Your task to perform on an android device: delete browsing data in the chrome app Image 0: 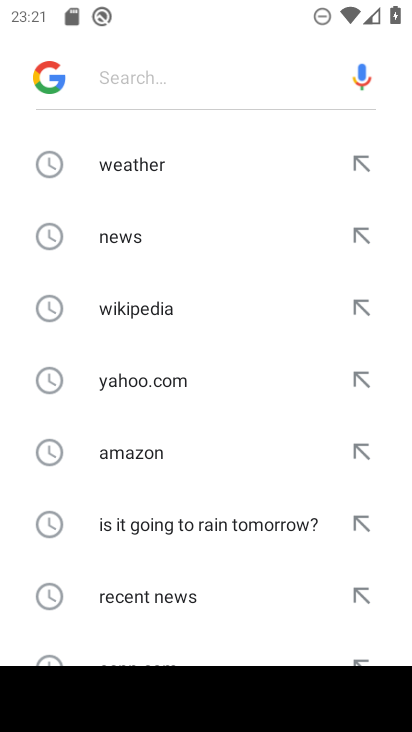
Step 0: press home button
Your task to perform on an android device: delete browsing data in the chrome app Image 1: 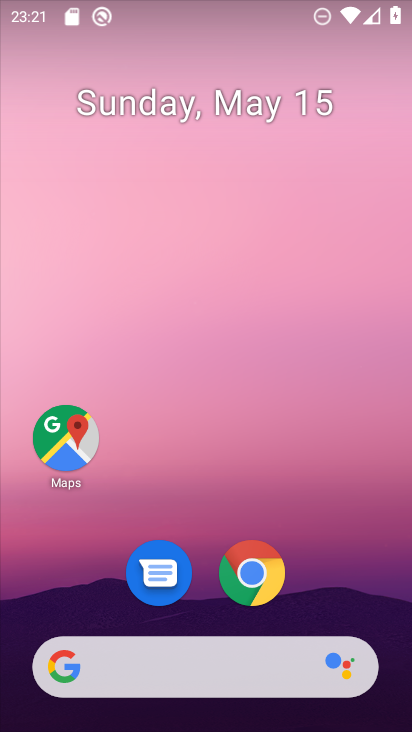
Step 1: click (293, 571)
Your task to perform on an android device: delete browsing data in the chrome app Image 2: 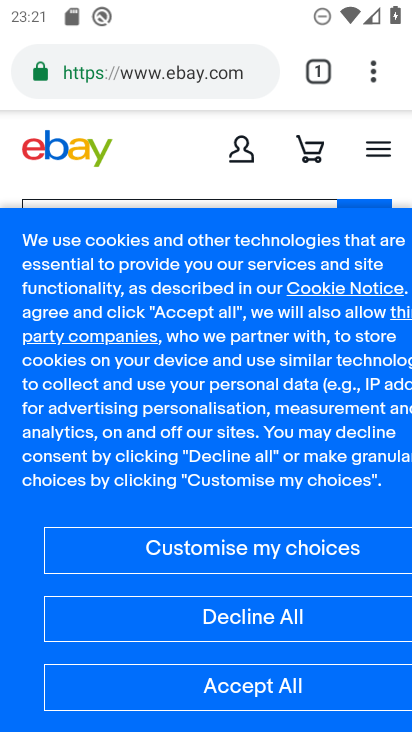
Step 2: drag from (379, 67) to (141, 552)
Your task to perform on an android device: delete browsing data in the chrome app Image 3: 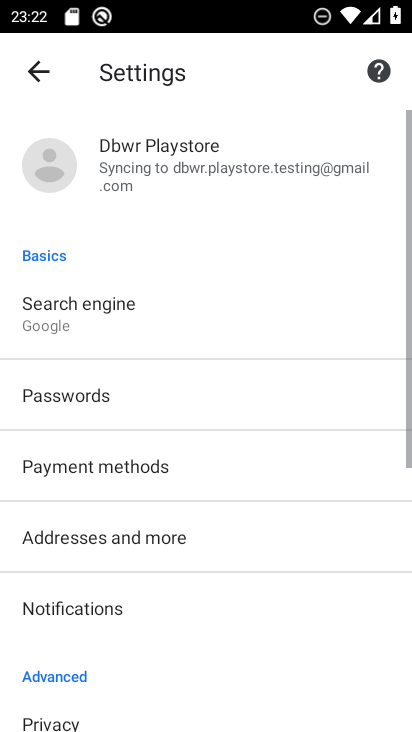
Step 3: click (116, 689)
Your task to perform on an android device: delete browsing data in the chrome app Image 4: 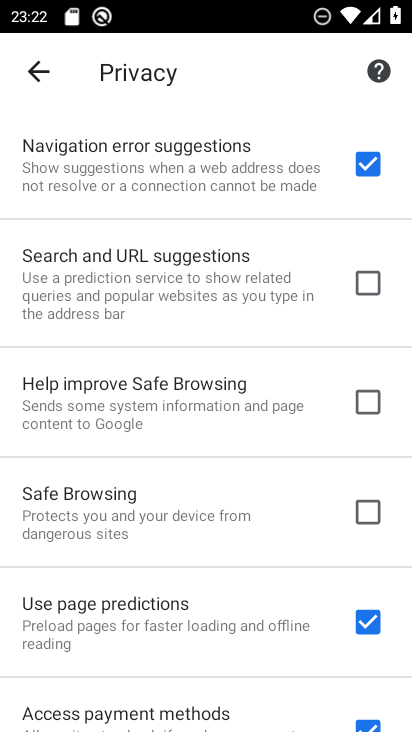
Step 4: drag from (211, 625) to (128, 104)
Your task to perform on an android device: delete browsing data in the chrome app Image 5: 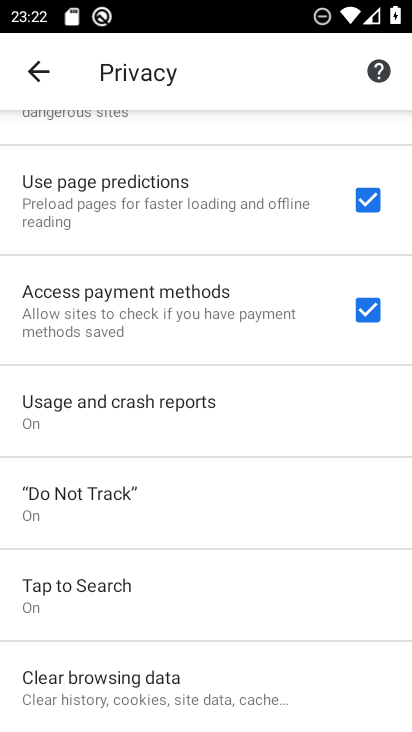
Step 5: click (174, 672)
Your task to perform on an android device: delete browsing data in the chrome app Image 6: 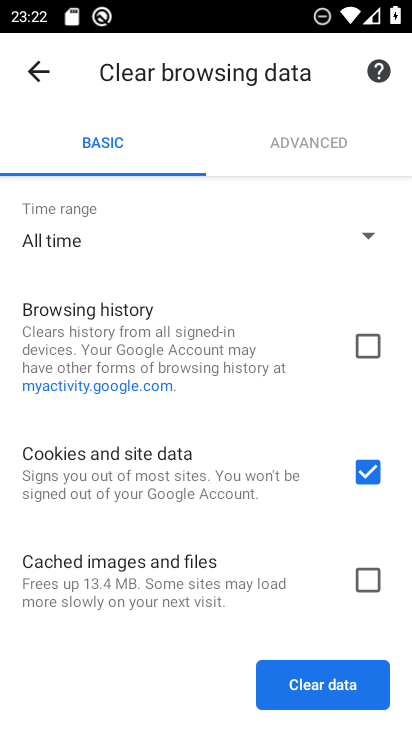
Step 6: click (307, 686)
Your task to perform on an android device: delete browsing data in the chrome app Image 7: 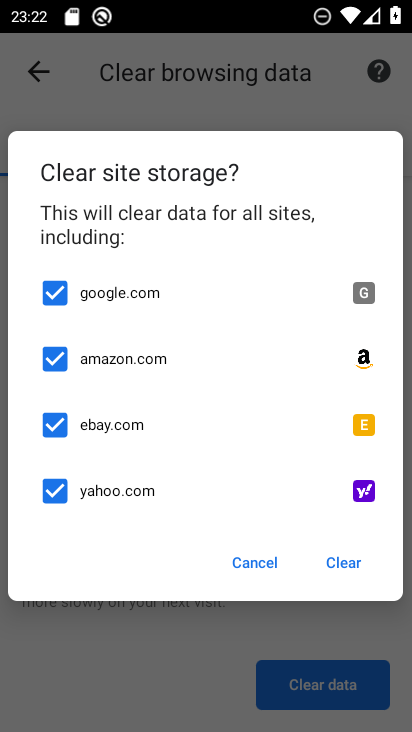
Step 7: click (352, 571)
Your task to perform on an android device: delete browsing data in the chrome app Image 8: 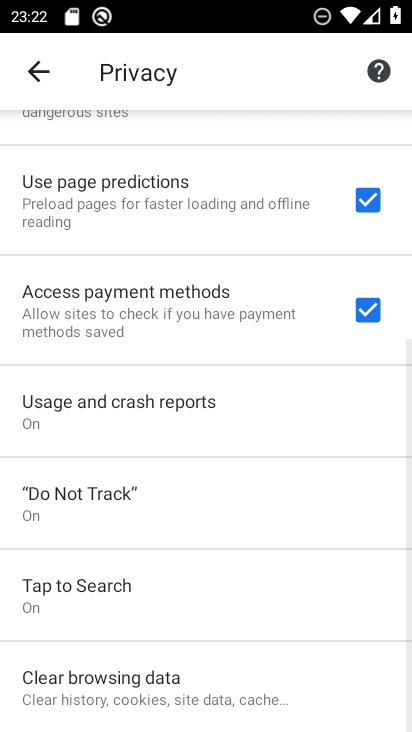
Step 8: task complete